Your task to perform on an android device: turn off wifi Image 0: 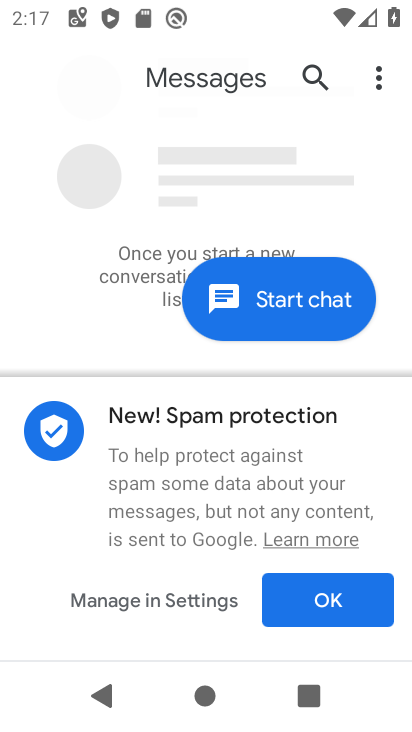
Step 0: press back button
Your task to perform on an android device: turn off wifi Image 1: 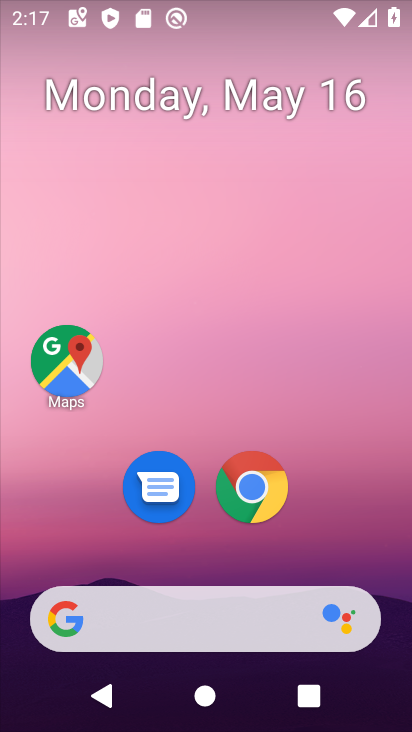
Step 1: drag from (318, 548) to (316, 148)
Your task to perform on an android device: turn off wifi Image 2: 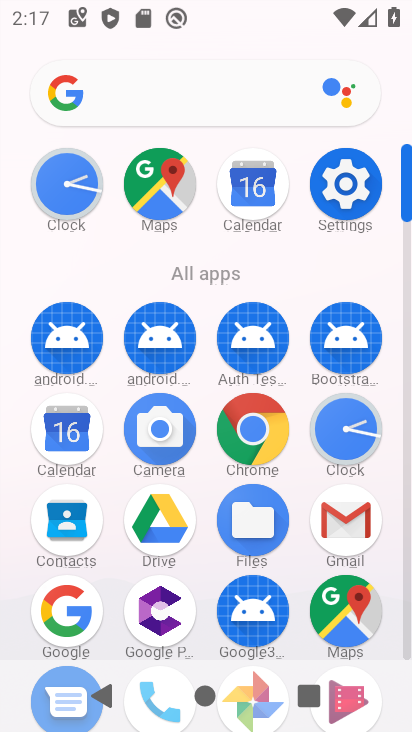
Step 2: click (344, 182)
Your task to perform on an android device: turn off wifi Image 3: 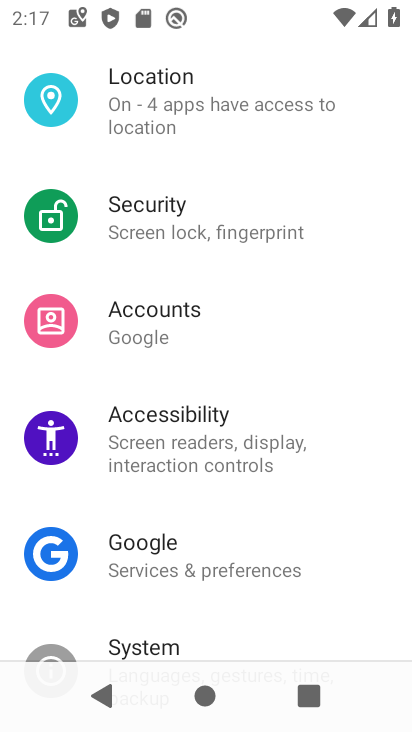
Step 3: drag from (286, 160) to (299, 267)
Your task to perform on an android device: turn off wifi Image 4: 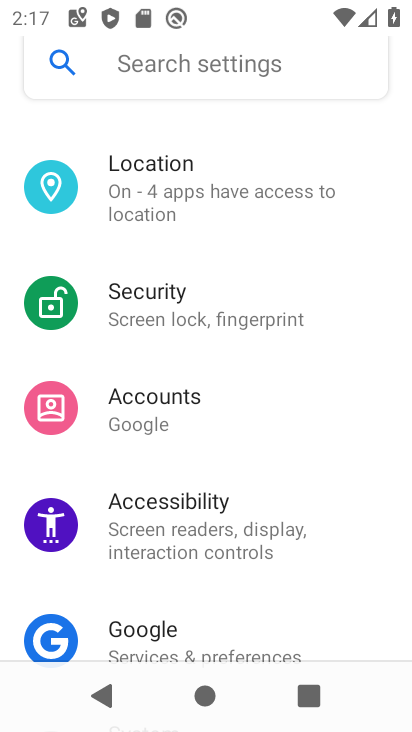
Step 4: drag from (259, 176) to (268, 297)
Your task to perform on an android device: turn off wifi Image 5: 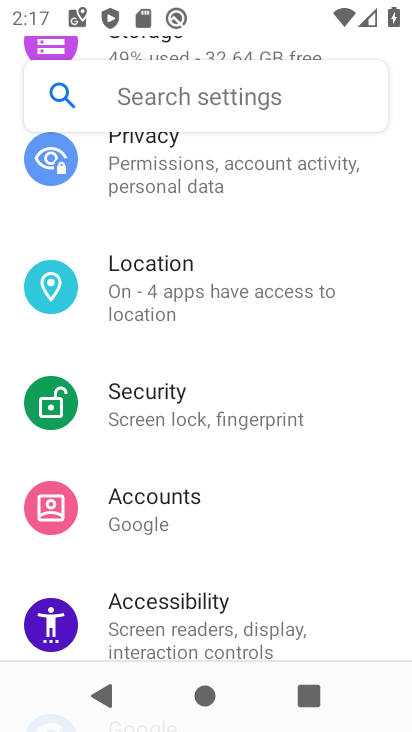
Step 5: drag from (246, 245) to (267, 350)
Your task to perform on an android device: turn off wifi Image 6: 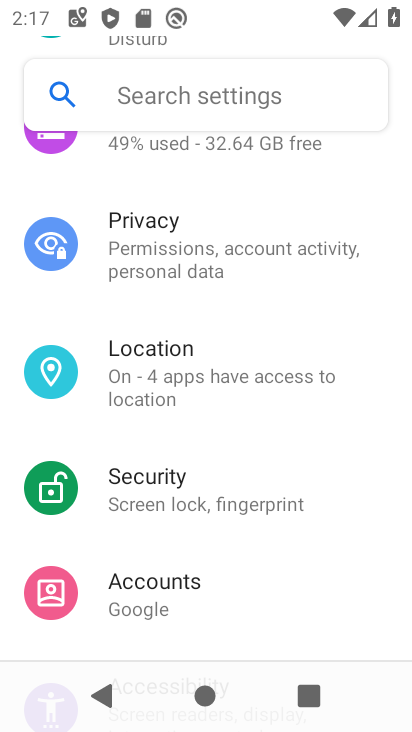
Step 6: drag from (230, 209) to (277, 343)
Your task to perform on an android device: turn off wifi Image 7: 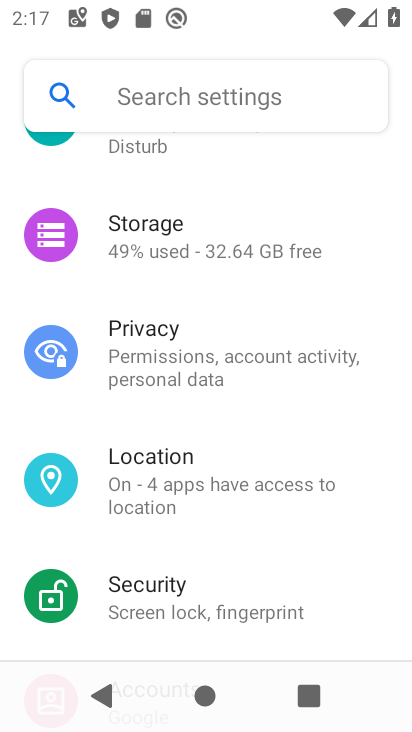
Step 7: drag from (224, 212) to (294, 345)
Your task to perform on an android device: turn off wifi Image 8: 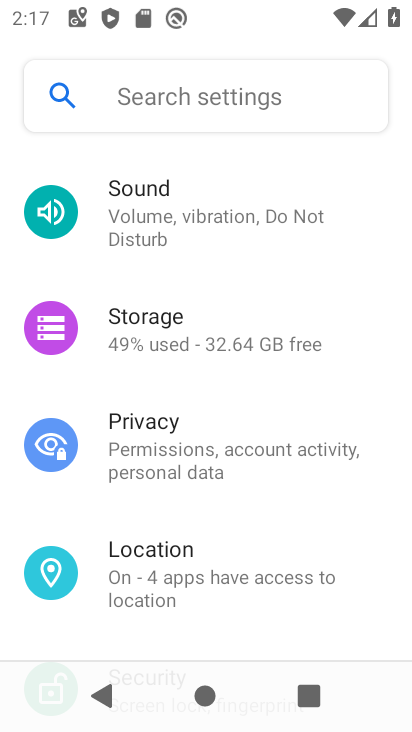
Step 8: drag from (233, 175) to (285, 304)
Your task to perform on an android device: turn off wifi Image 9: 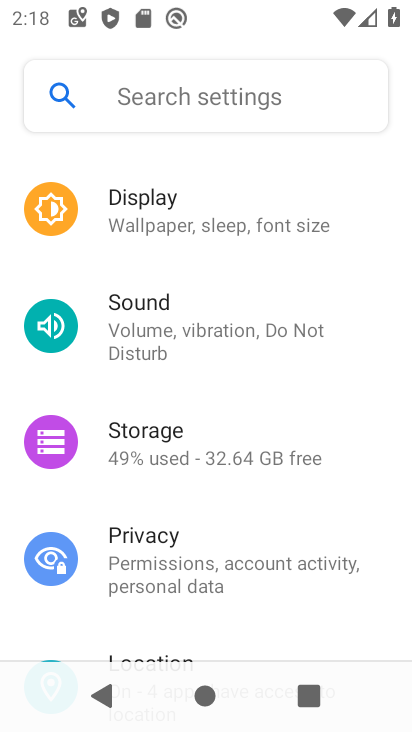
Step 9: drag from (226, 187) to (254, 315)
Your task to perform on an android device: turn off wifi Image 10: 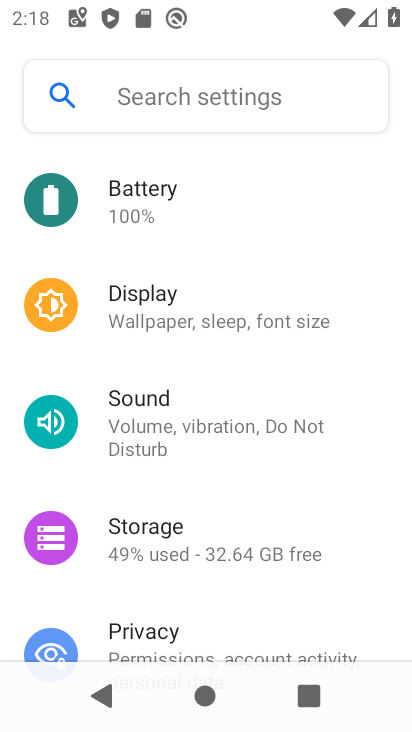
Step 10: drag from (237, 202) to (244, 338)
Your task to perform on an android device: turn off wifi Image 11: 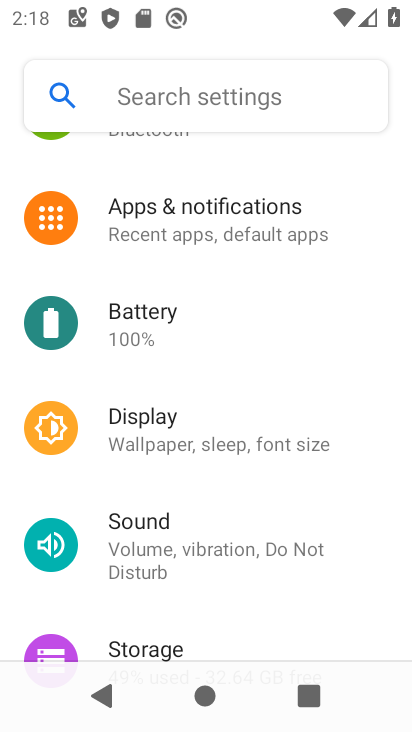
Step 11: drag from (204, 171) to (242, 335)
Your task to perform on an android device: turn off wifi Image 12: 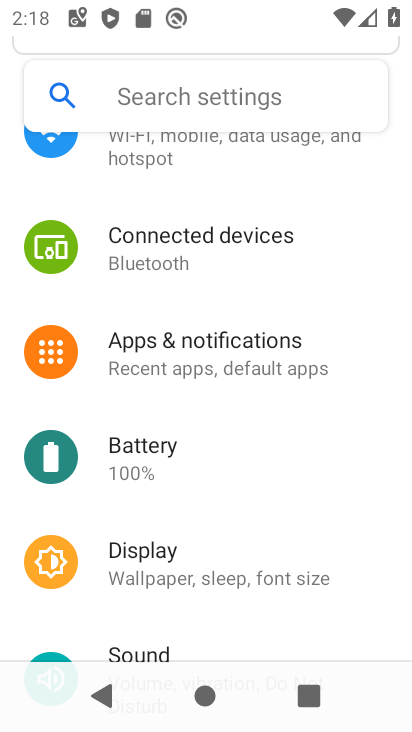
Step 12: drag from (227, 193) to (243, 350)
Your task to perform on an android device: turn off wifi Image 13: 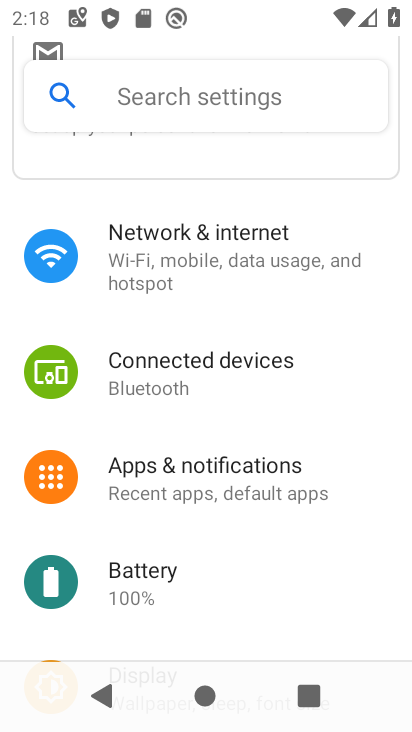
Step 13: click (169, 228)
Your task to perform on an android device: turn off wifi Image 14: 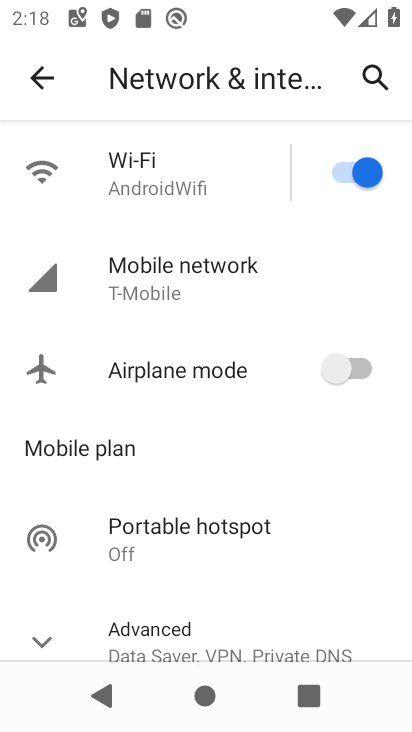
Step 14: click (364, 177)
Your task to perform on an android device: turn off wifi Image 15: 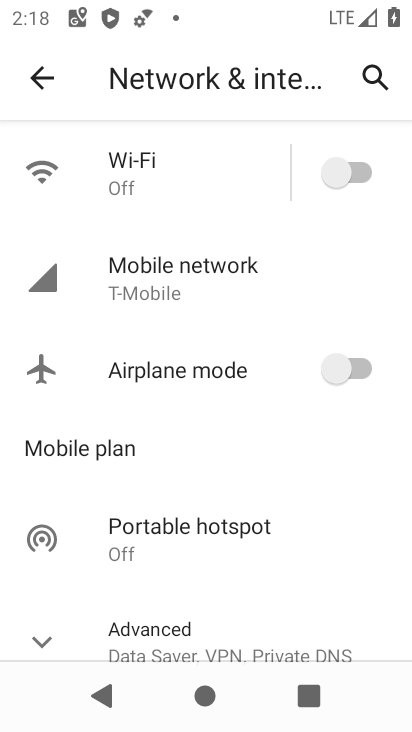
Step 15: task complete